Your task to perform on an android device: allow notifications from all sites in the chrome app Image 0: 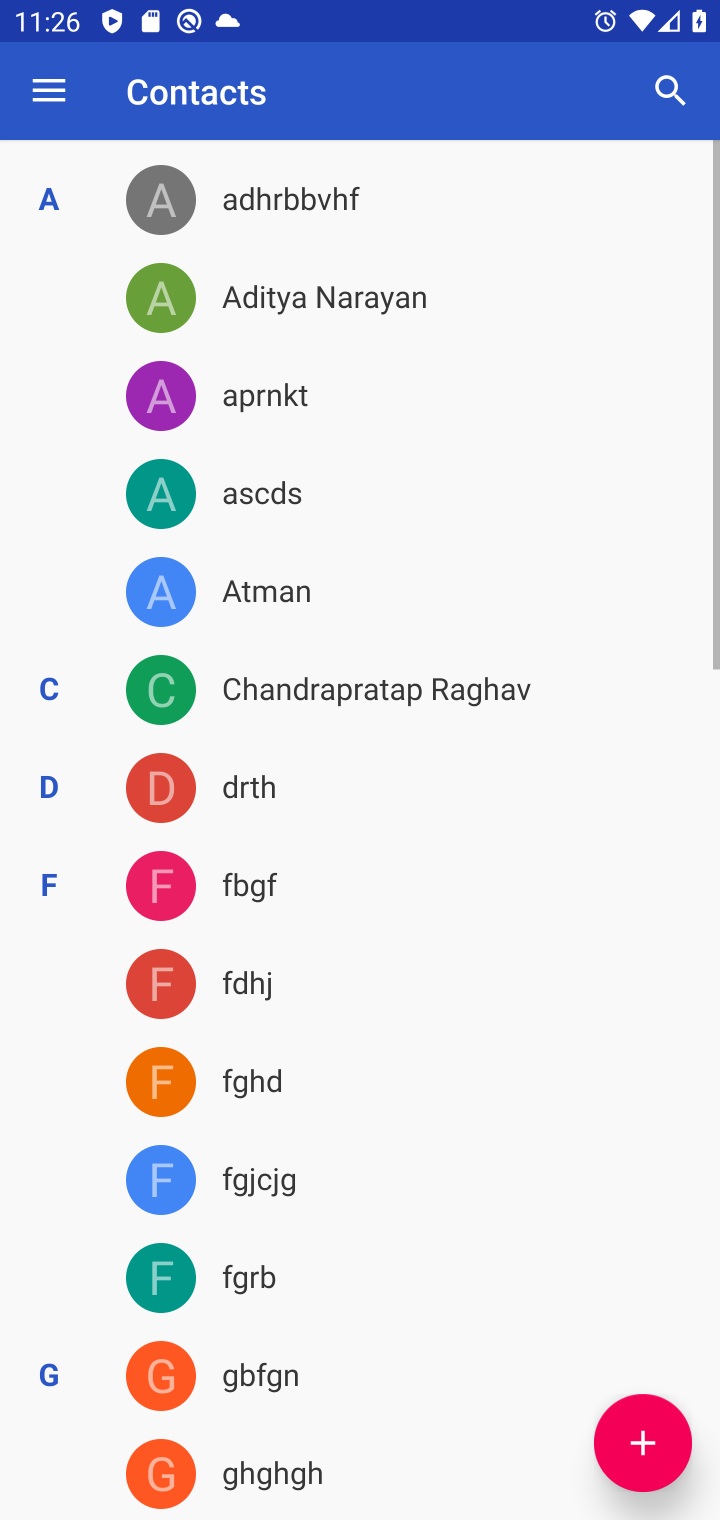
Step 0: press home button
Your task to perform on an android device: allow notifications from all sites in the chrome app Image 1: 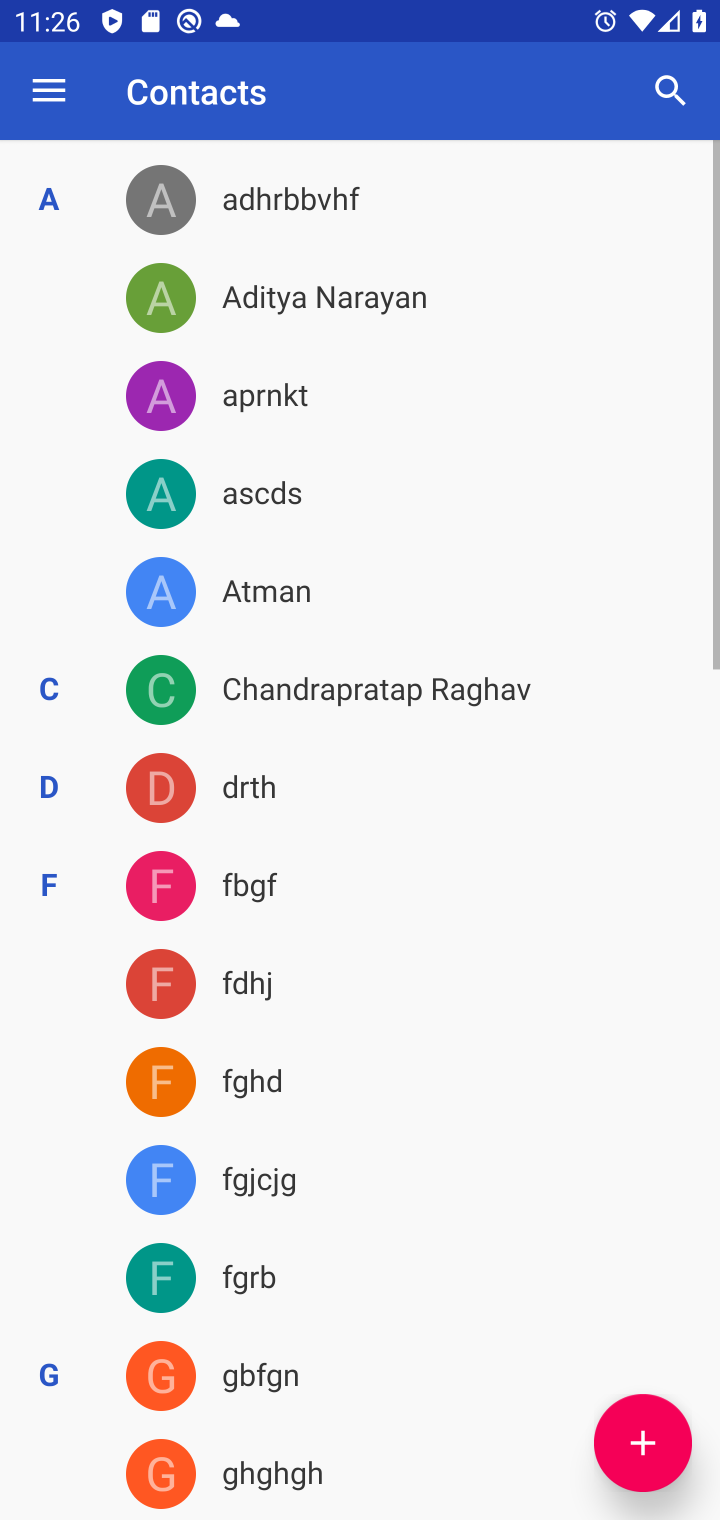
Step 1: click (505, 197)
Your task to perform on an android device: allow notifications from all sites in the chrome app Image 2: 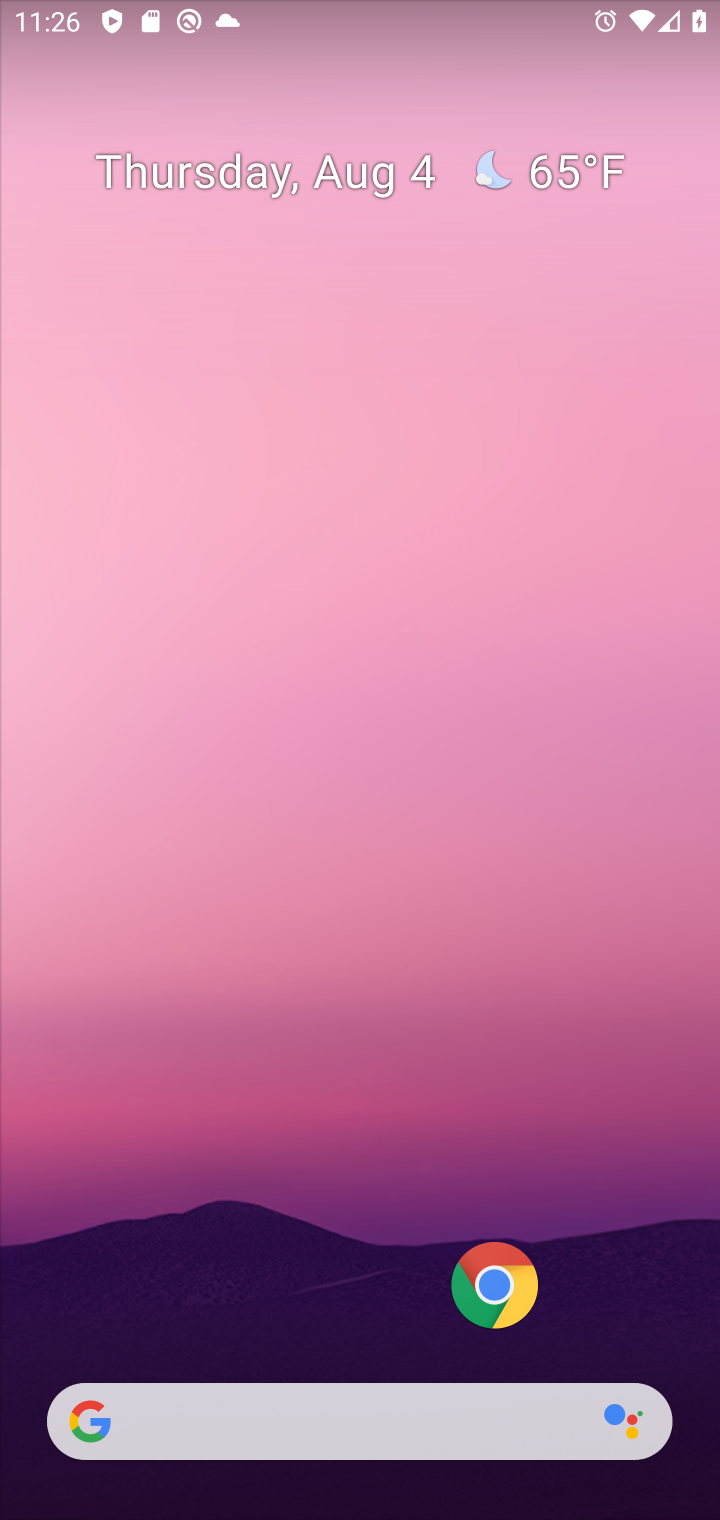
Step 2: drag from (126, 772) to (136, 124)
Your task to perform on an android device: allow notifications from all sites in the chrome app Image 3: 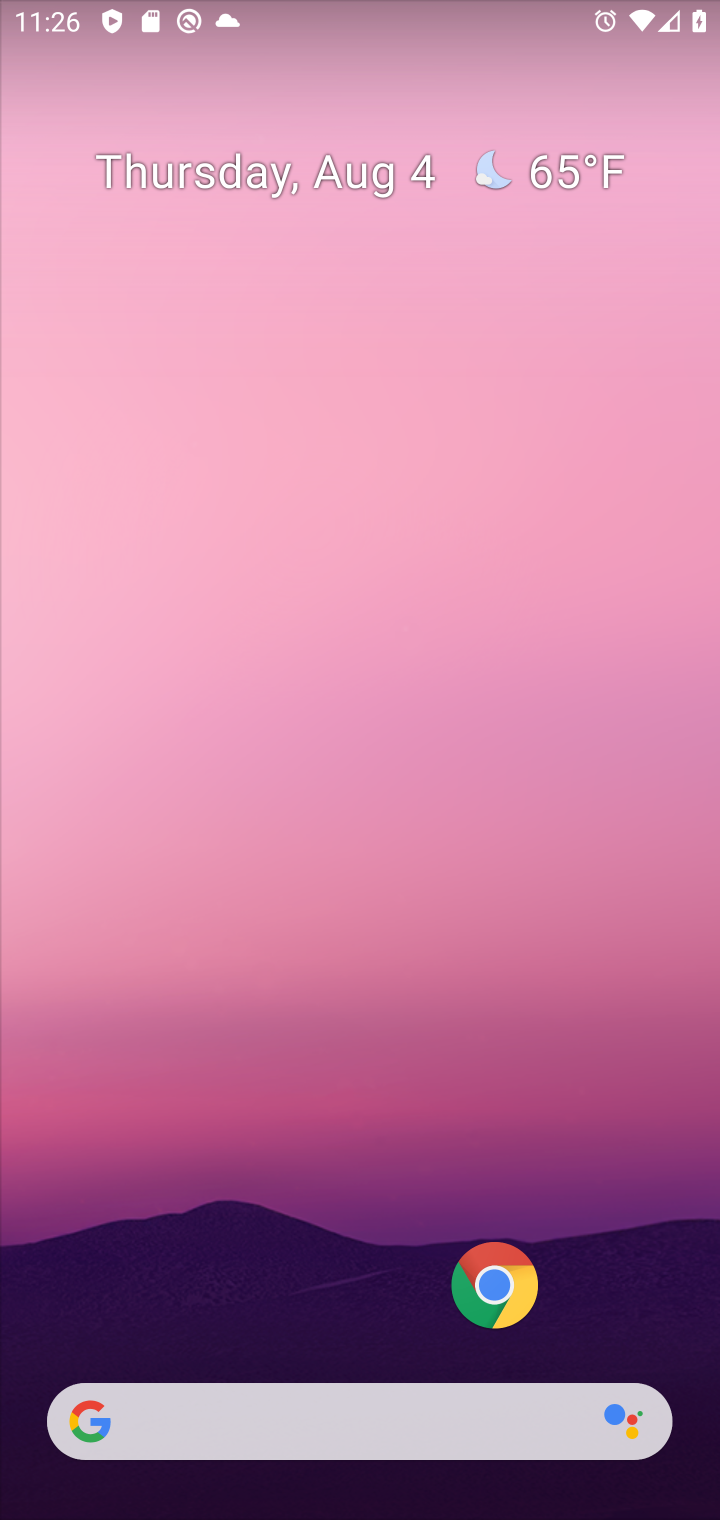
Step 3: drag from (362, 1342) to (353, 197)
Your task to perform on an android device: allow notifications from all sites in the chrome app Image 4: 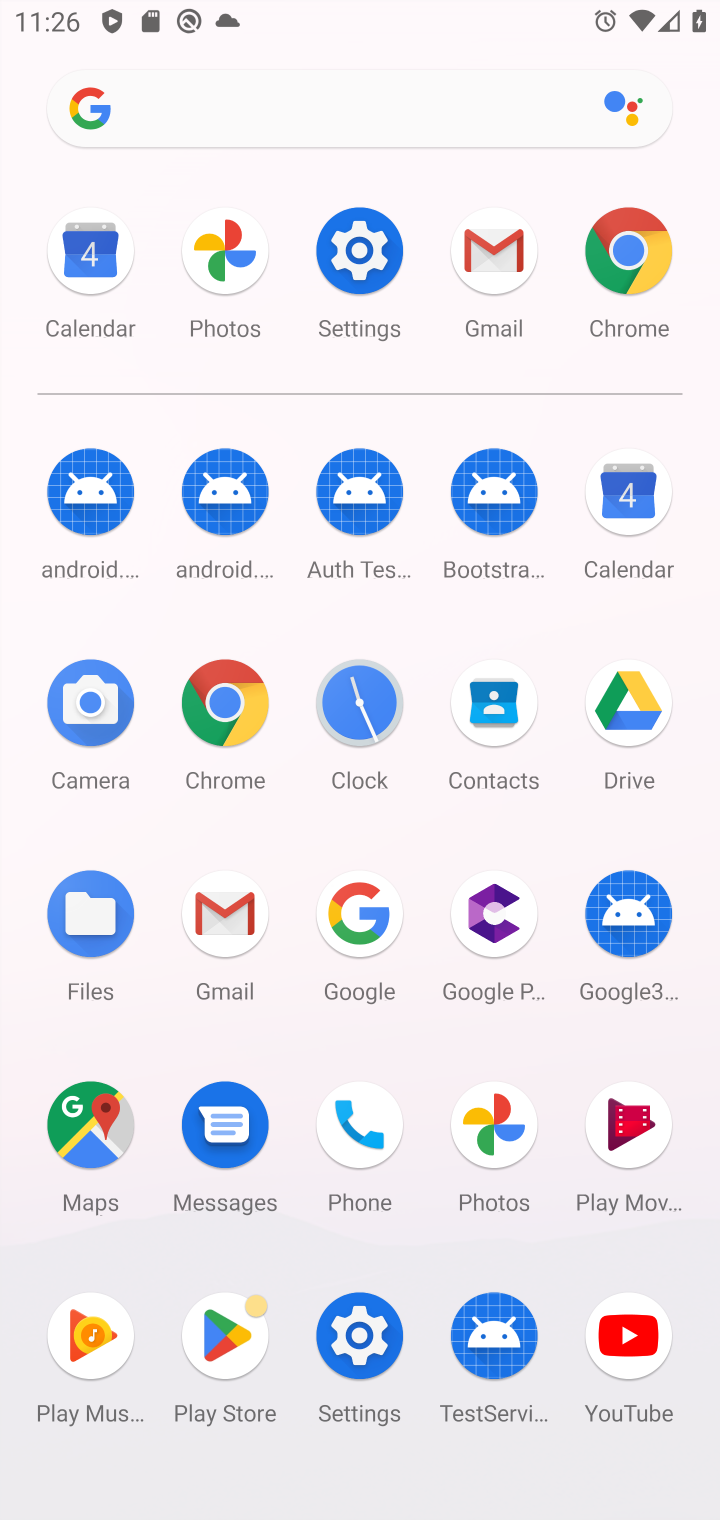
Step 4: click (623, 235)
Your task to perform on an android device: allow notifications from all sites in the chrome app Image 5: 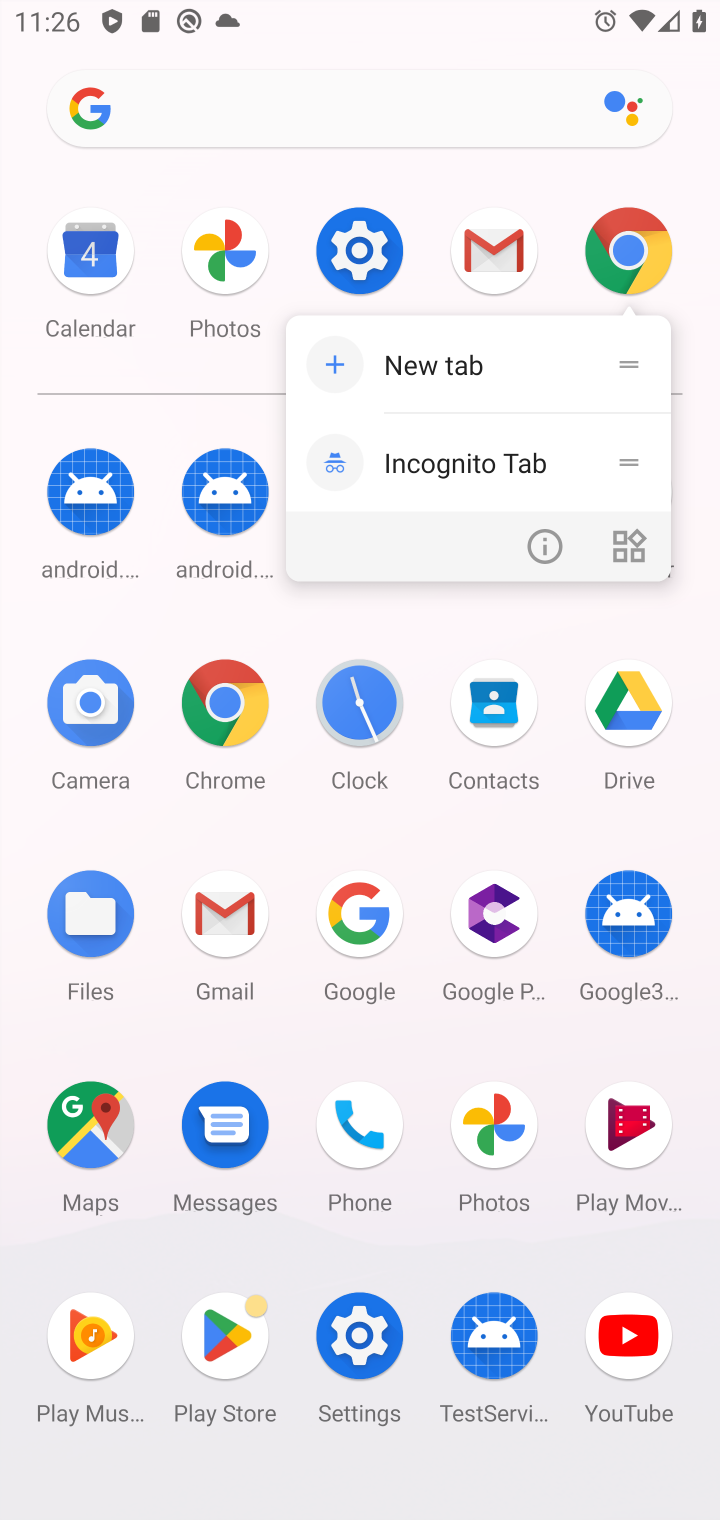
Step 5: click (549, 528)
Your task to perform on an android device: allow notifications from all sites in the chrome app Image 6: 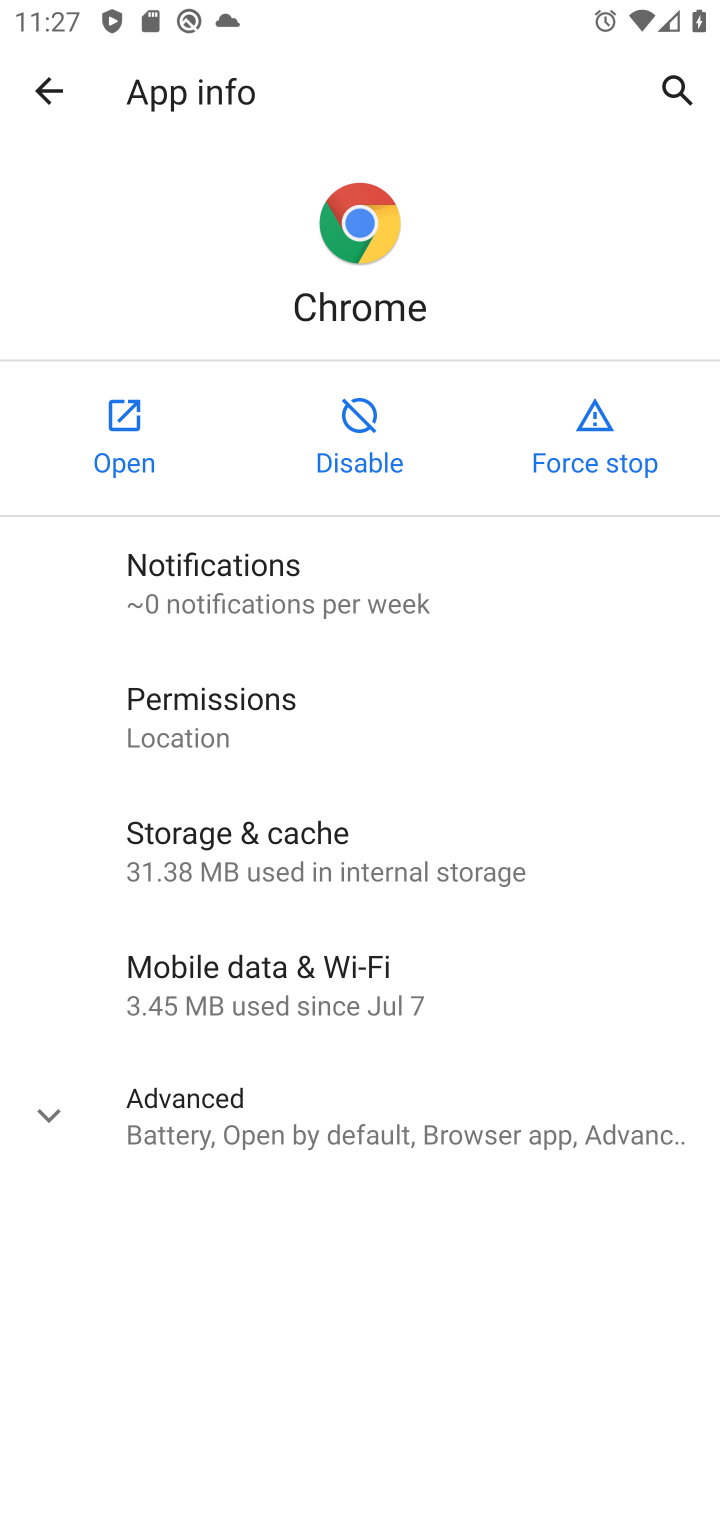
Step 6: click (181, 686)
Your task to perform on an android device: allow notifications from all sites in the chrome app Image 7: 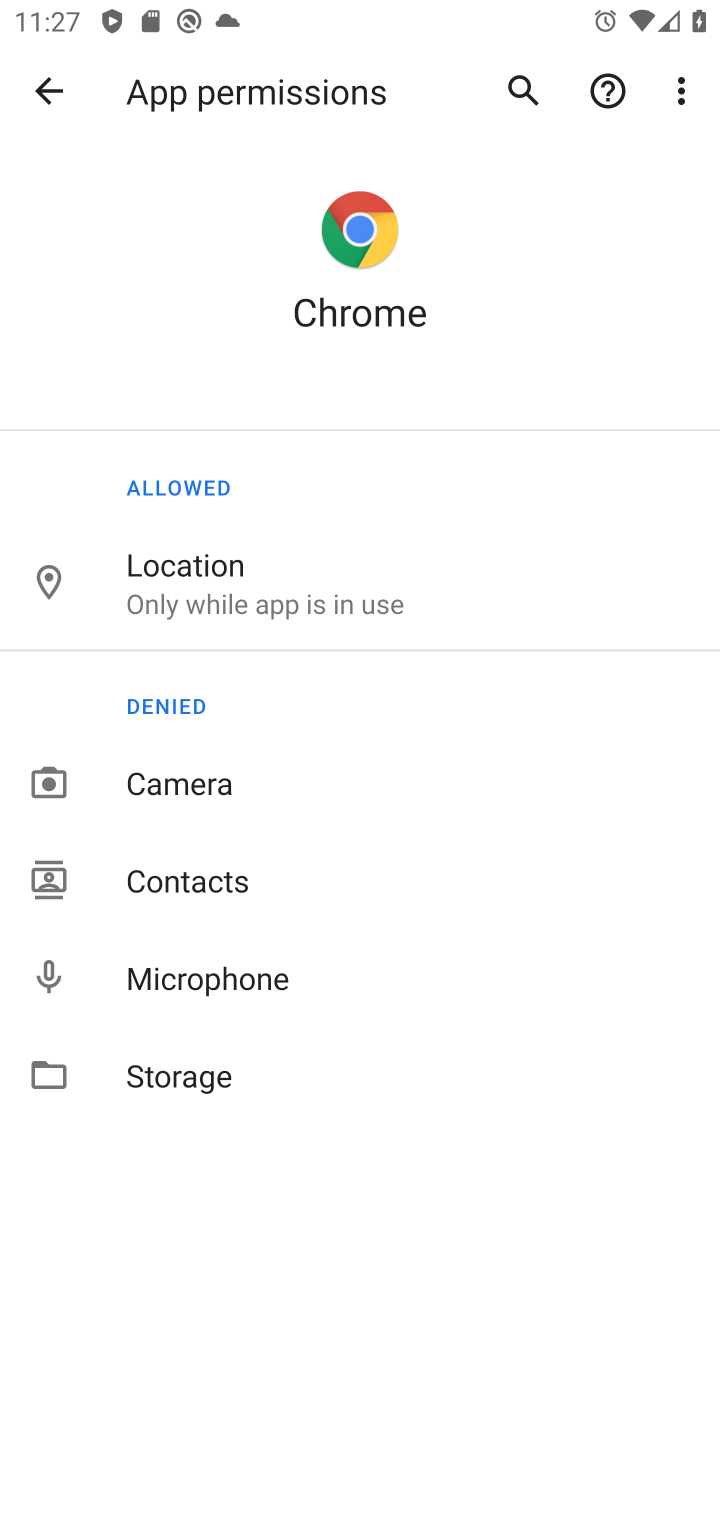
Step 7: click (166, 589)
Your task to perform on an android device: allow notifications from all sites in the chrome app Image 8: 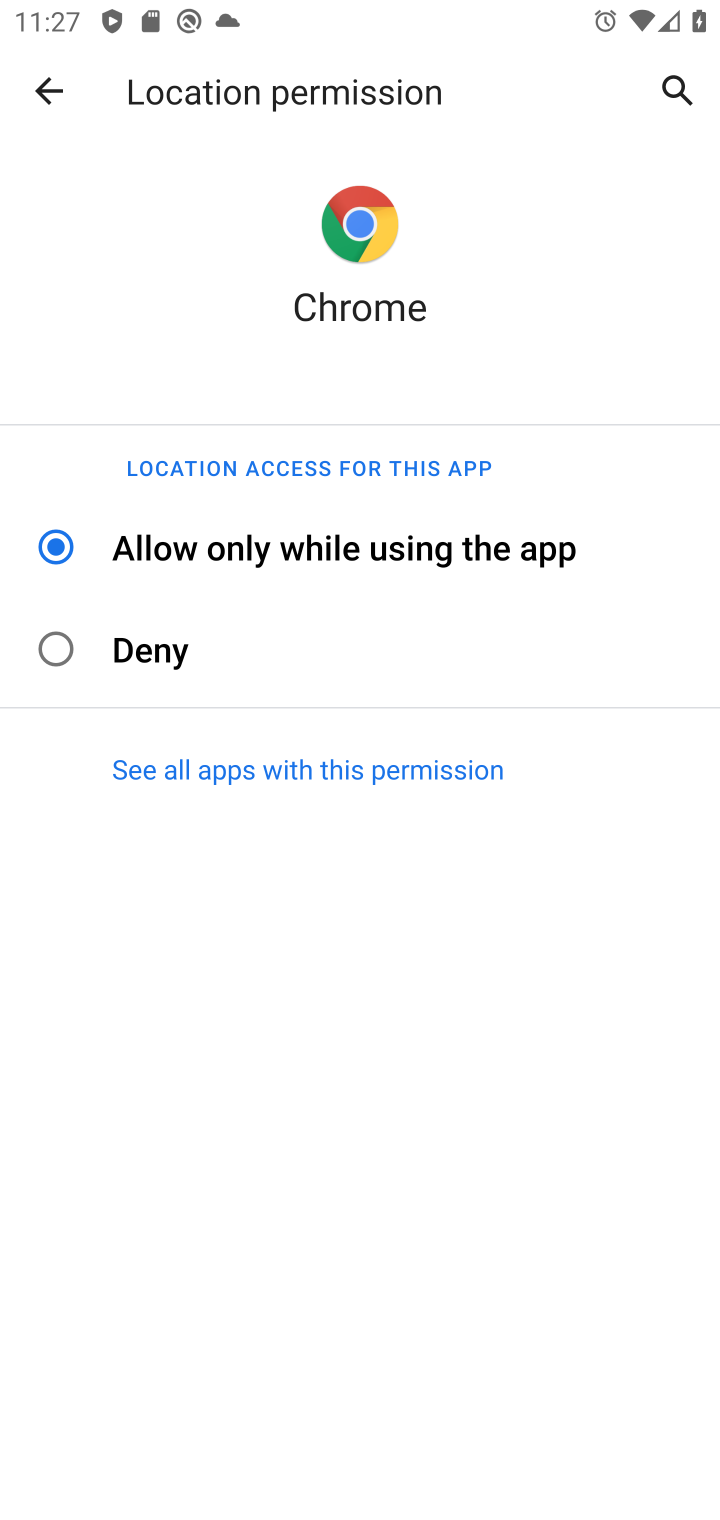
Step 8: click (136, 654)
Your task to perform on an android device: allow notifications from all sites in the chrome app Image 9: 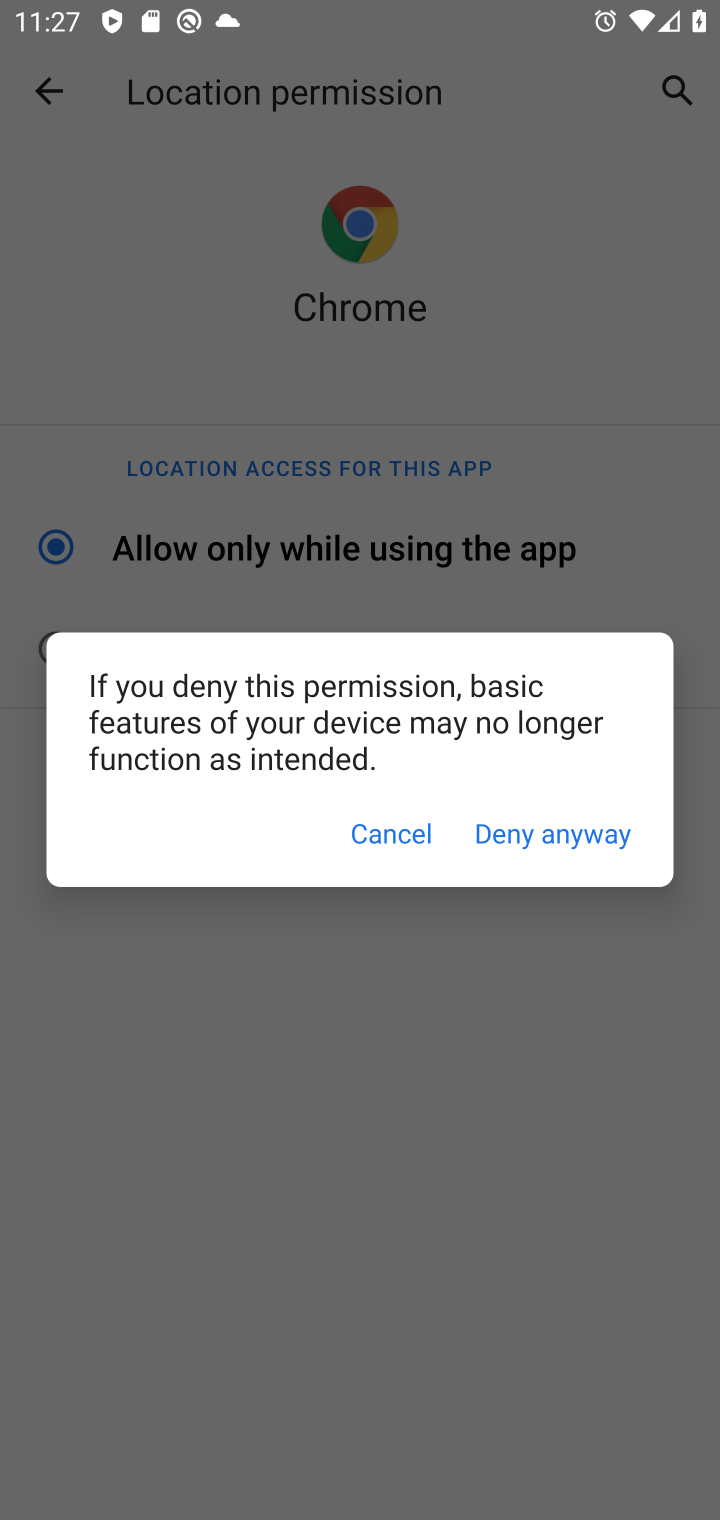
Step 9: click (379, 835)
Your task to perform on an android device: allow notifications from all sites in the chrome app Image 10: 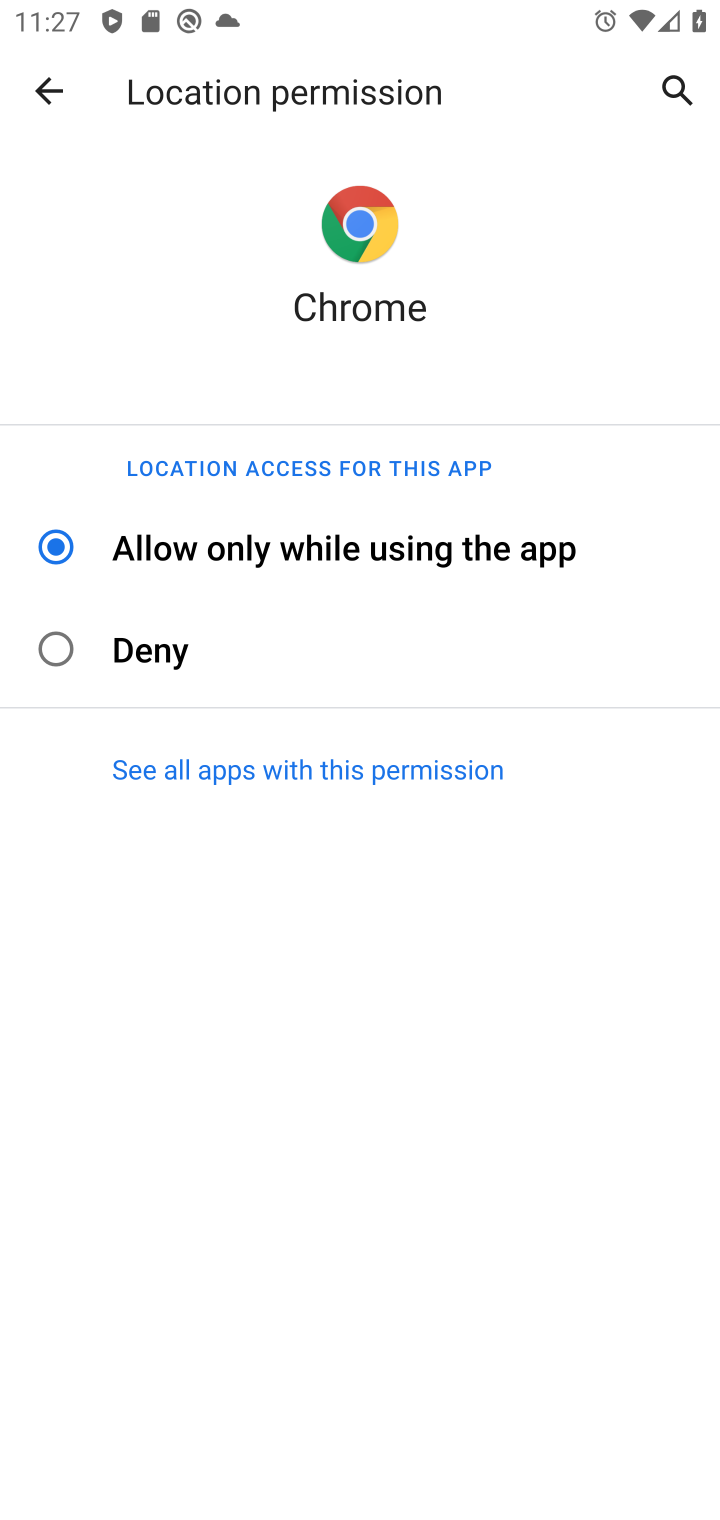
Step 10: click (50, 94)
Your task to perform on an android device: allow notifications from all sites in the chrome app Image 11: 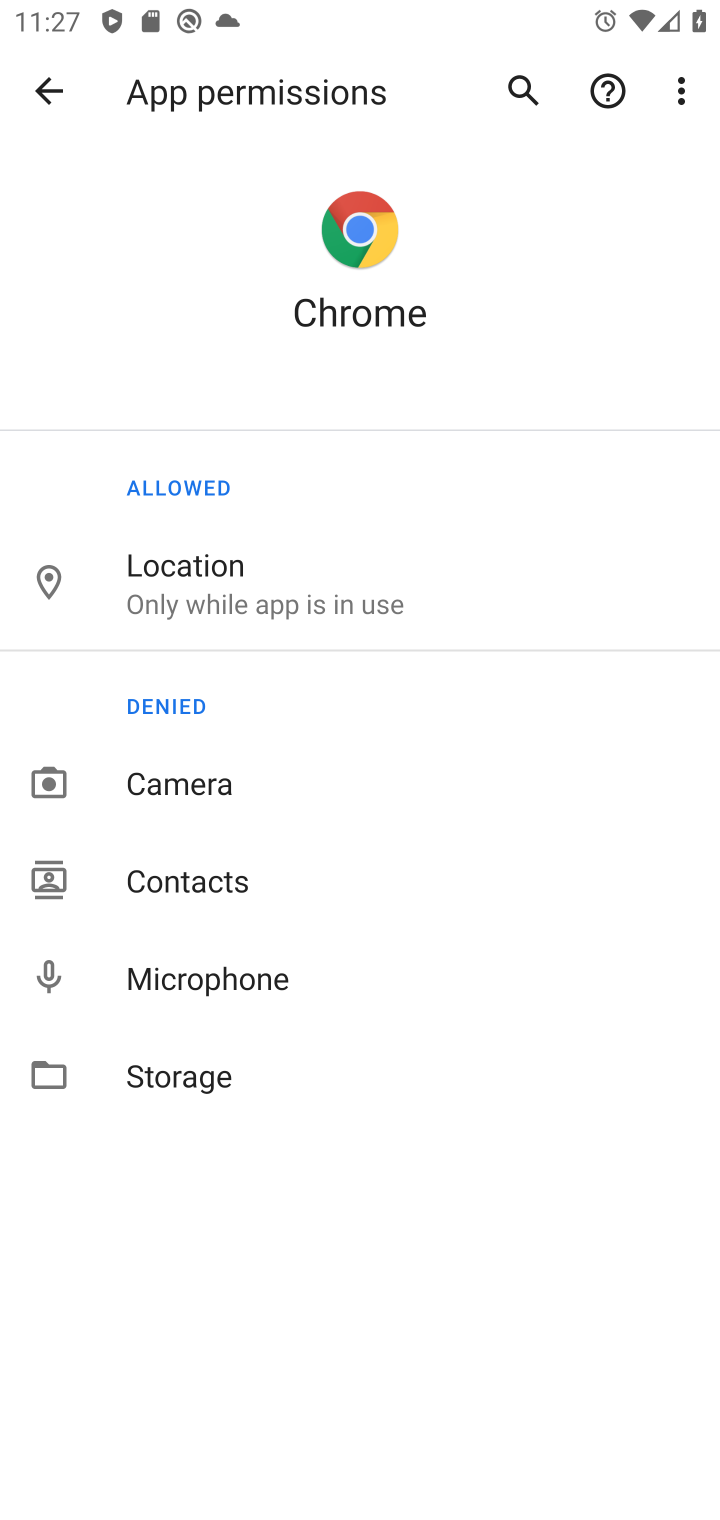
Step 11: click (132, 785)
Your task to perform on an android device: allow notifications from all sites in the chrome app Image 12: 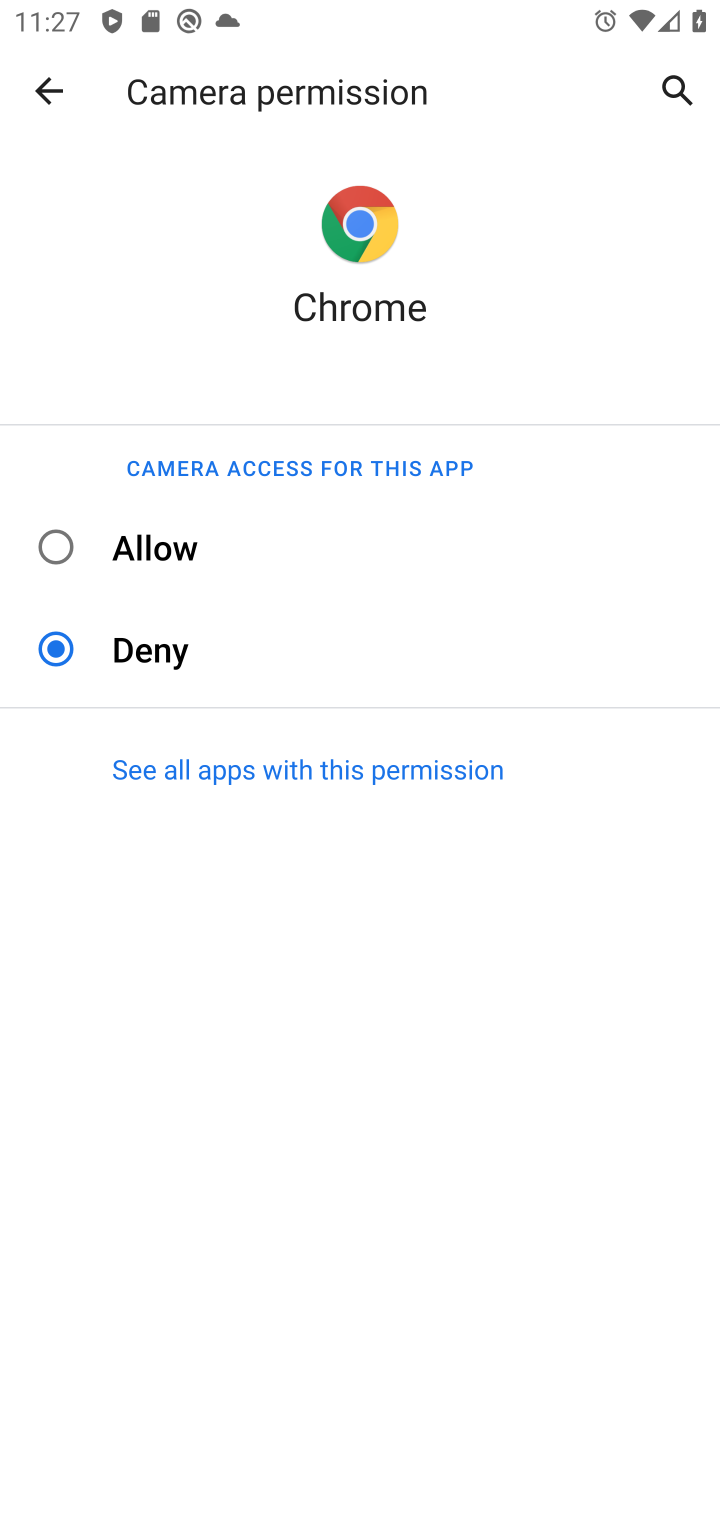
Step 12: click (100, 515)
Your task to perform on an android device: allow notifications from all sites in the chrome app Image 13: 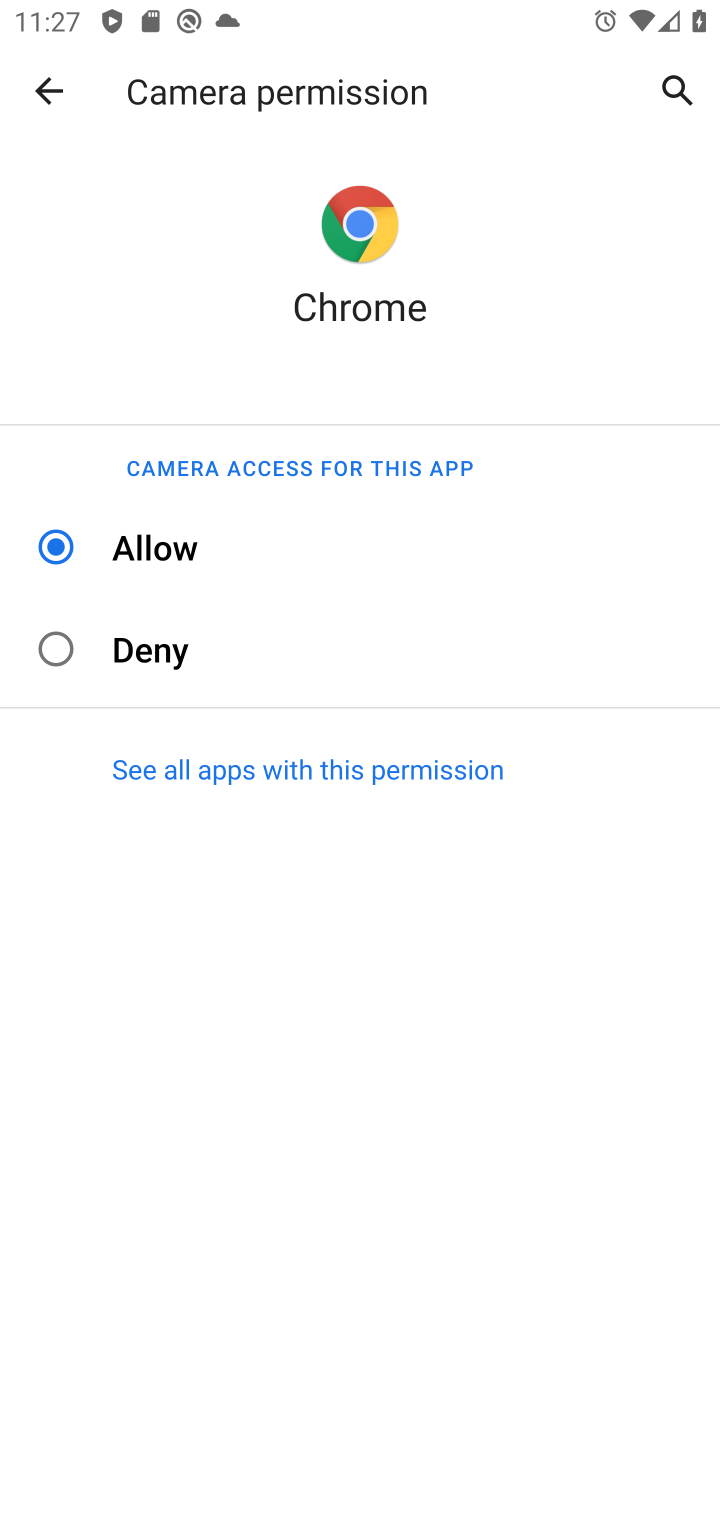
Step 13: click (60, 81)
Your task to perform on an android device: allow notifications from all sites in the chrome app Image 14: 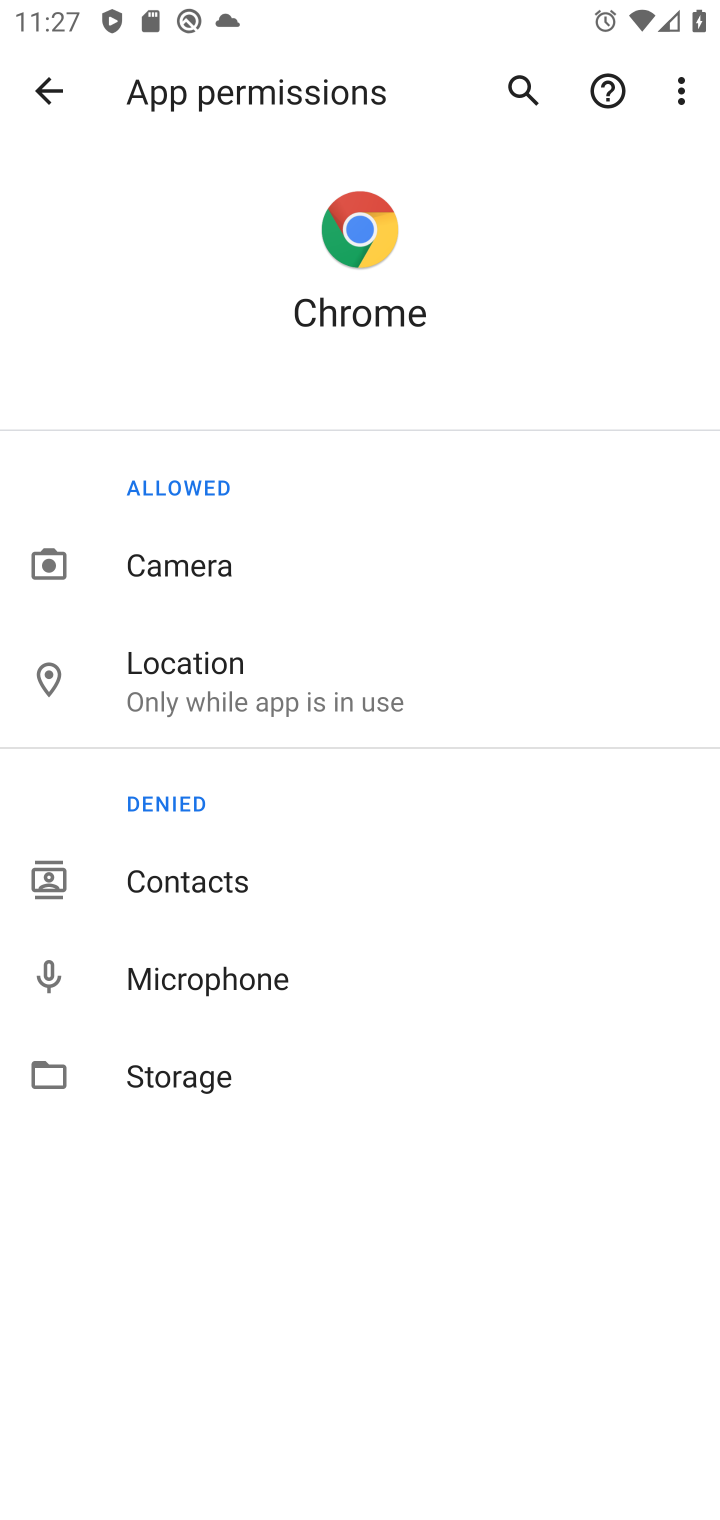
Step 14: click (138, 869)
Your task to perform on an android device: allow notifications from all sites in the chrome app Image 15: 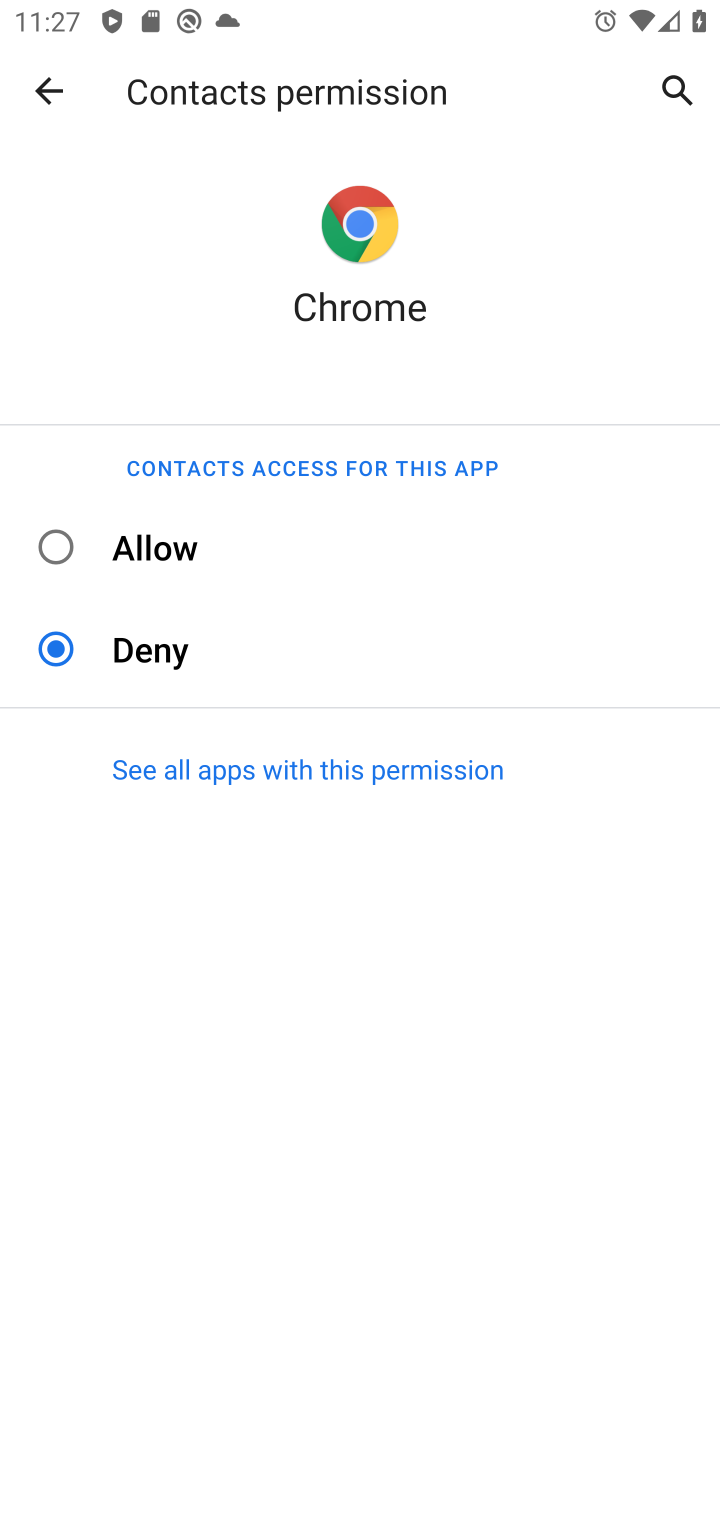
Step 15: click (95, 552)
Your task to perform on an android device: allow notifications from all sites in the chrome app Image 16: 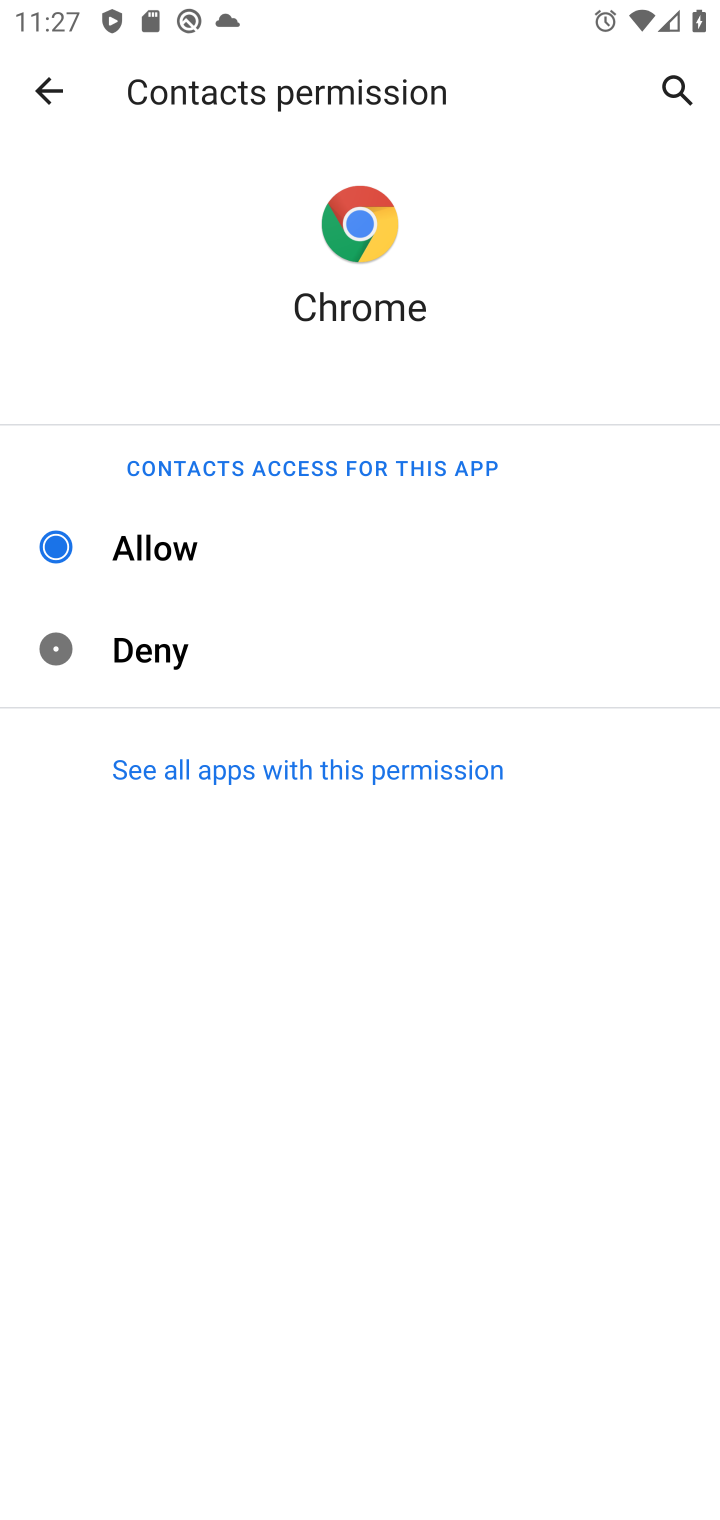
Step 16: click (20, 80)
Your task to perform on an android device: allow notifications from all sites in the chrome app Image 17: 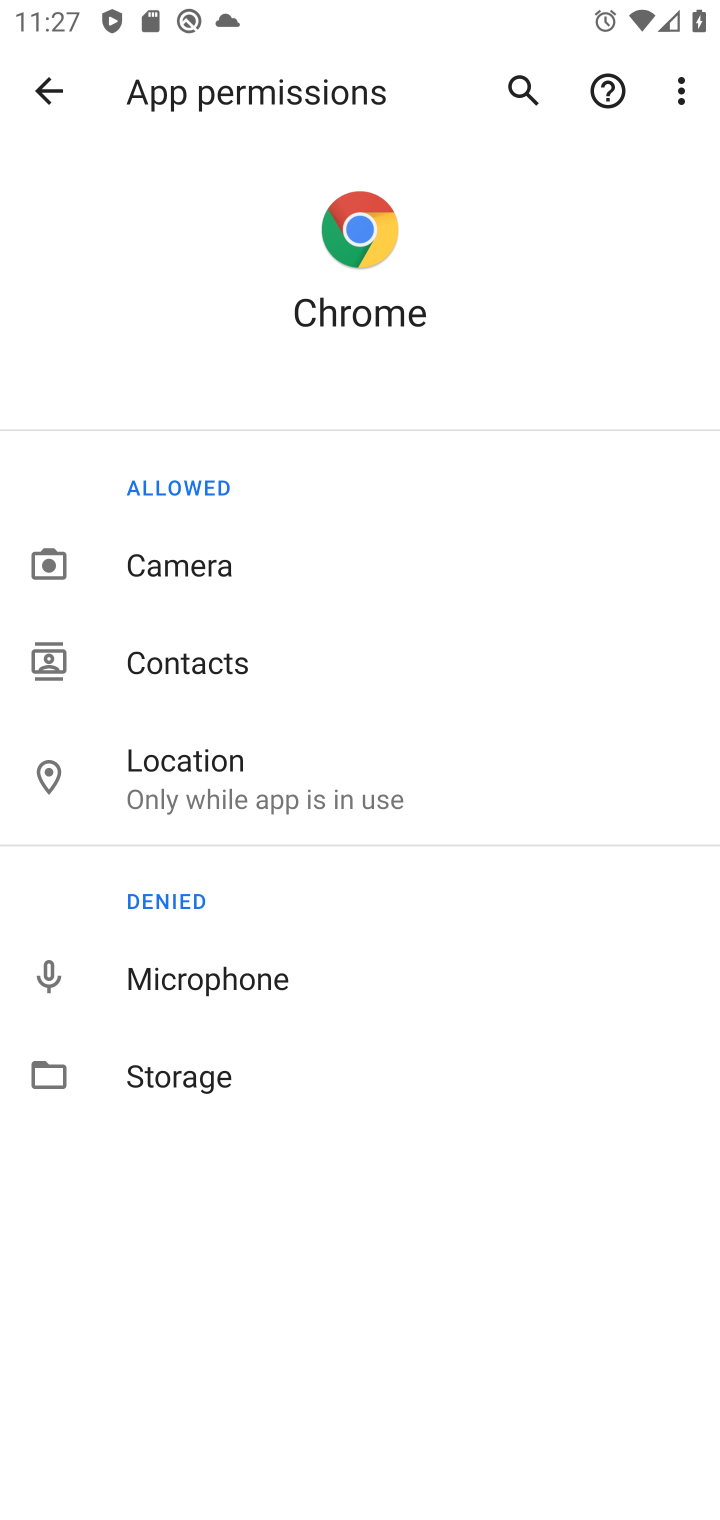
Step 17: click (112, 971)
Your task to perform on an android device: allow notifications from all sites in the chrome app Image 18: 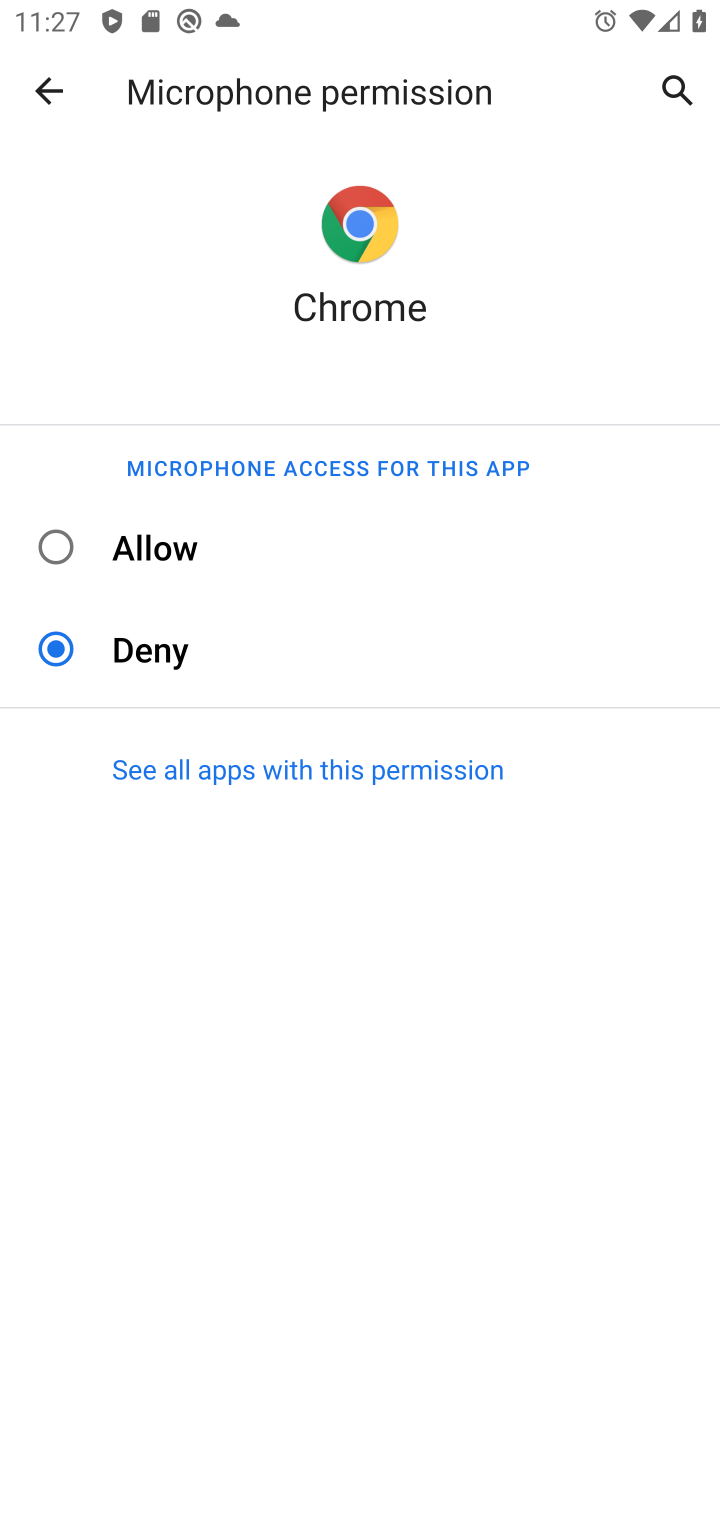
Step 18: click (87, 553)
Your task to perform on an android device: allow notifications from all sites in the chrome app Image 19: 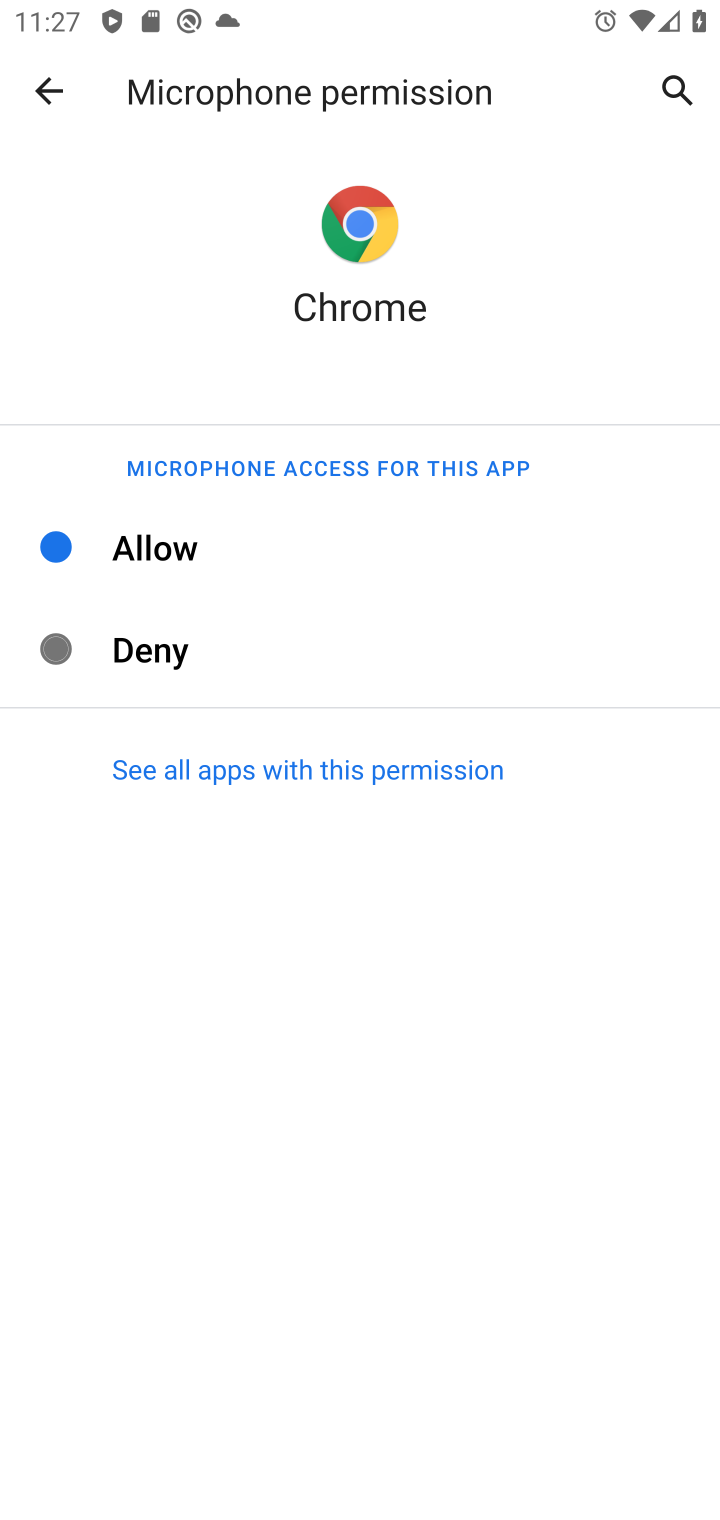
Step 19: click (33, 83)
Your task to perform on an android device: allow notifications from all sites in the chrome app Image 20: 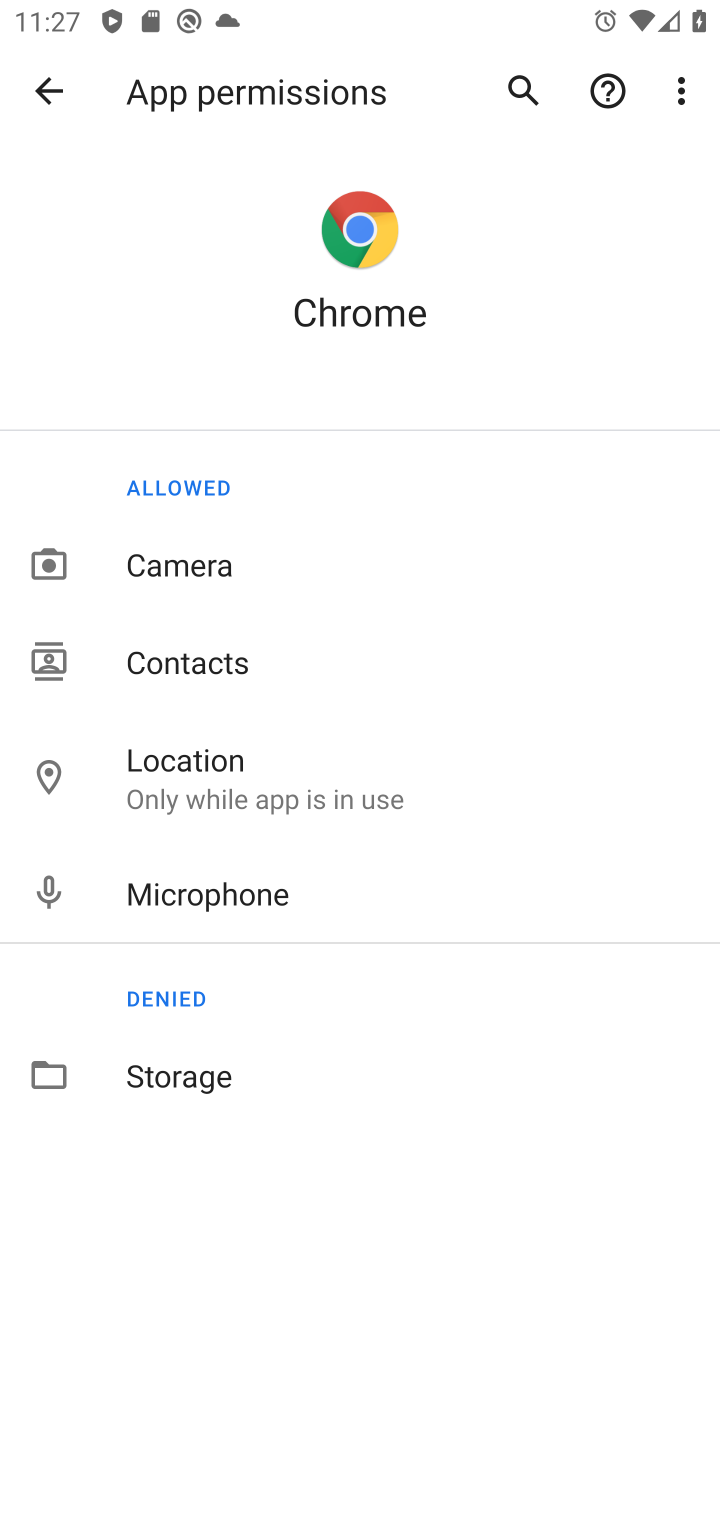
Step 20: click (180, 1072)
Your task to perform on an android device: allow notifications from all sites in the chrome app Image 21: 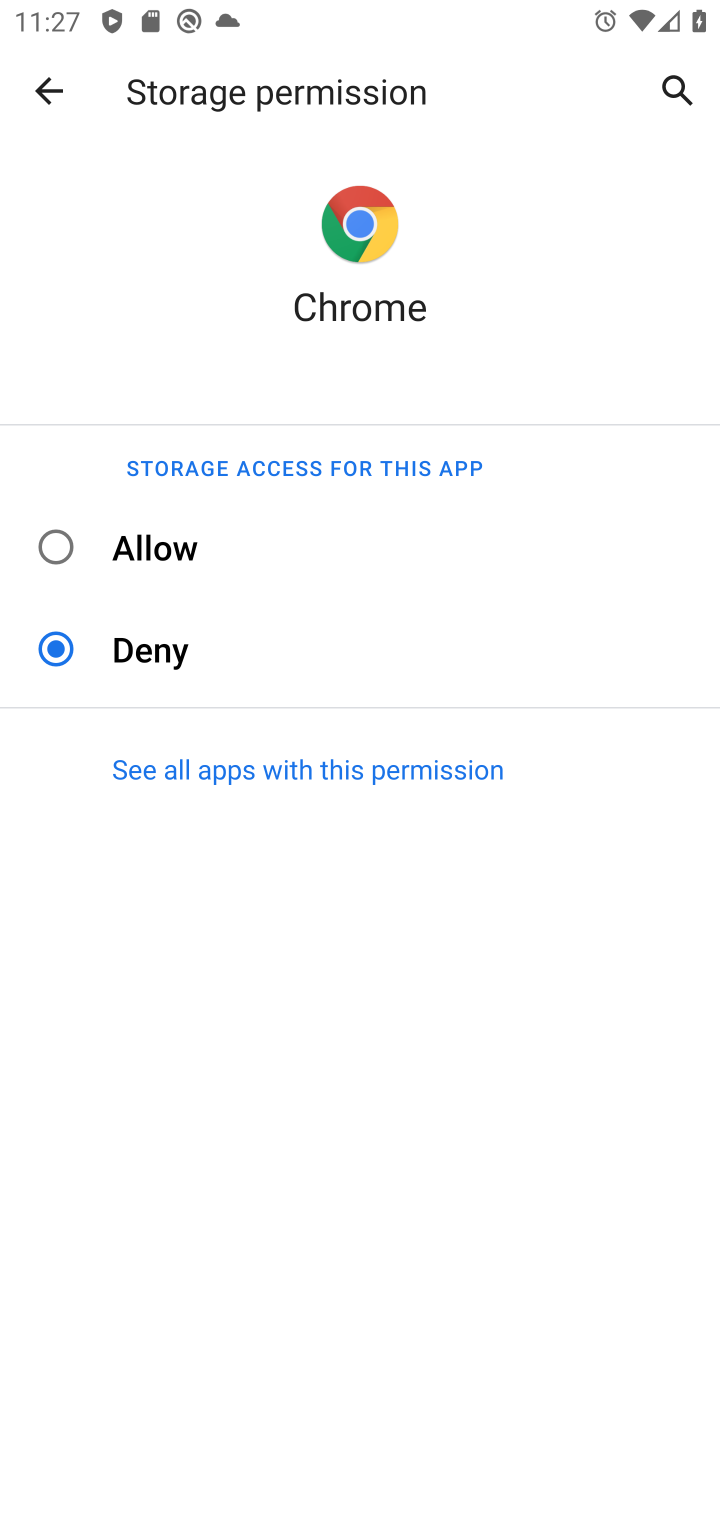
Step 21: click (125, 567)
Your task to perform on an android device: allow notifications from all sites in the chrome app Image 22: 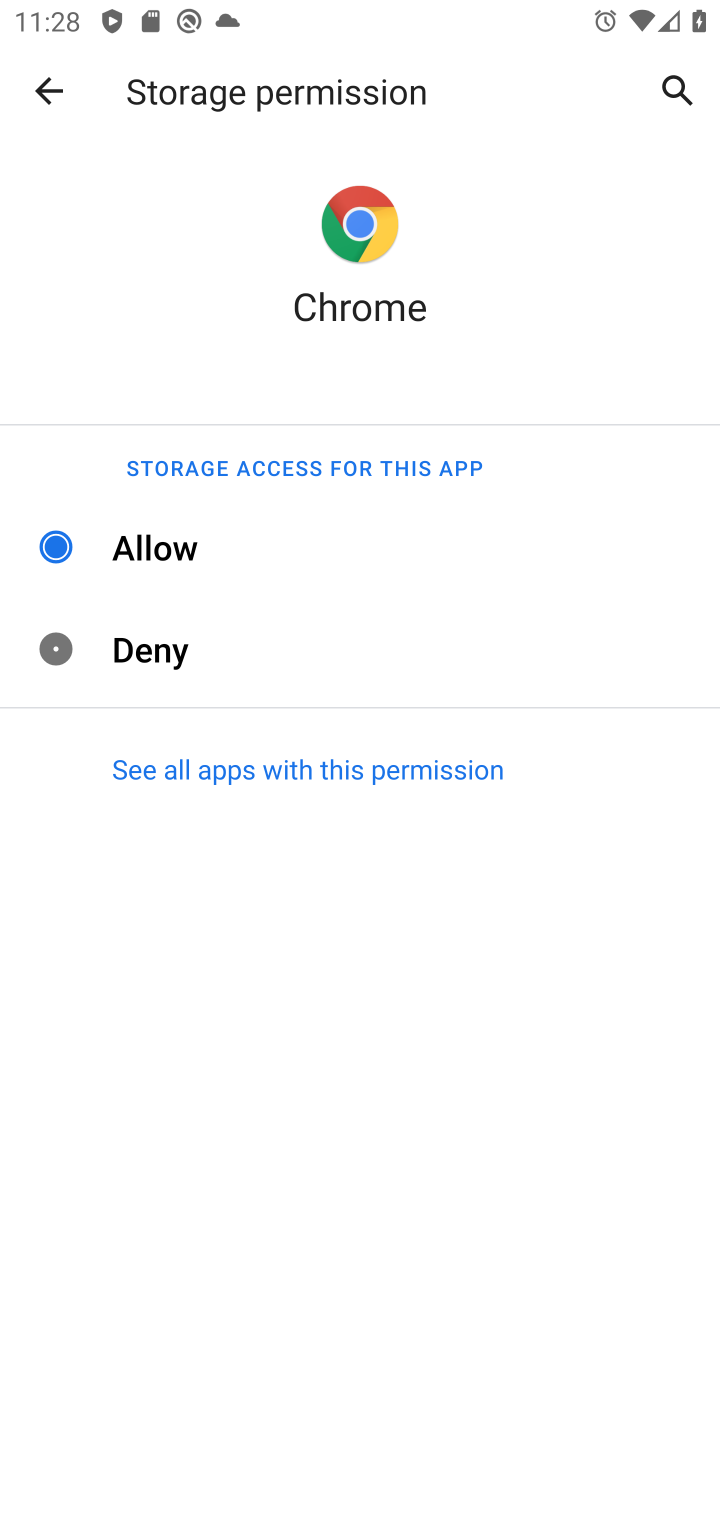
Step 22: click (52, 118)
Your task to perform on an android device: allow notifications from all sites in the chrome app Image 23: 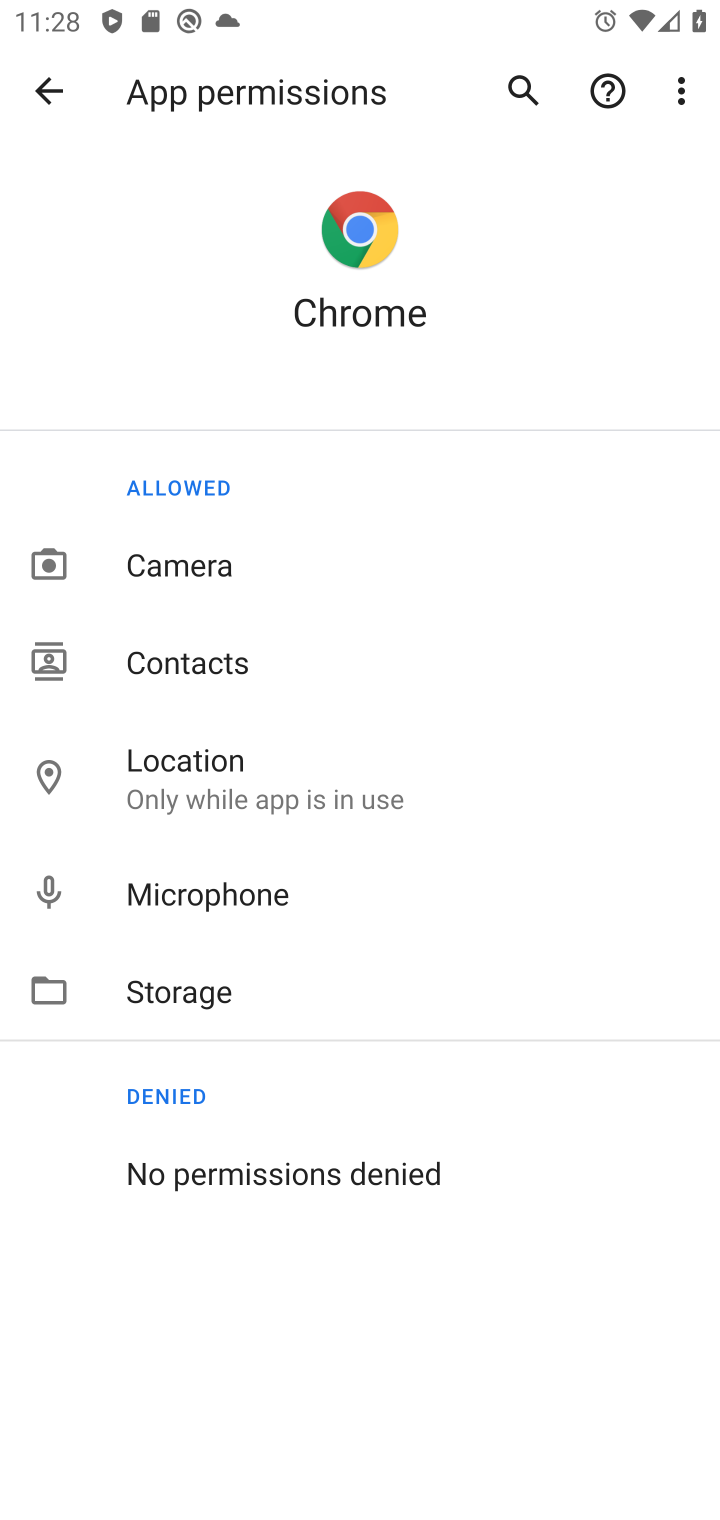
Step 23: task complete